Your task to perform on an android device: Search for Italian restaurants on Maps Image 0: 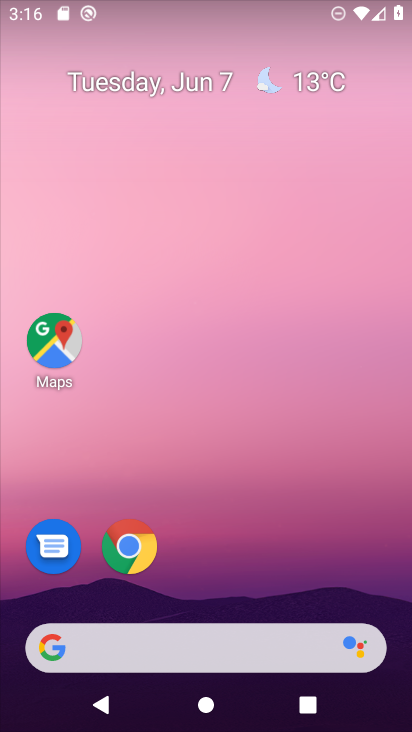
Step 0: click (182, 416)
Your task to perform on an android device: Search for Italian restaurants on Maps Image 1: 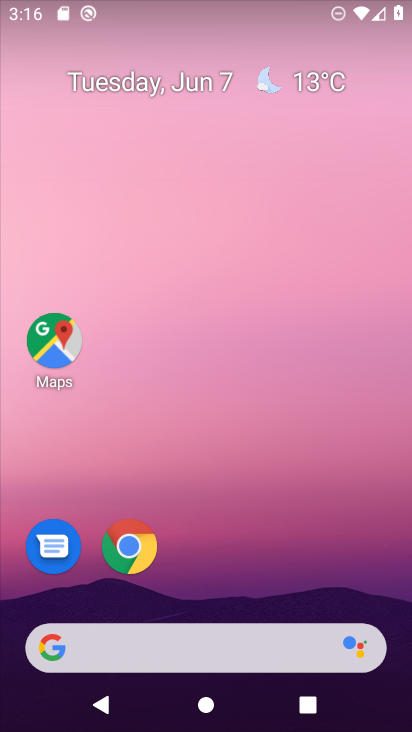
Step 1: click (59, 319)
Your task to perform on an android device: Search for Italian restaurants on Maps Image 2: 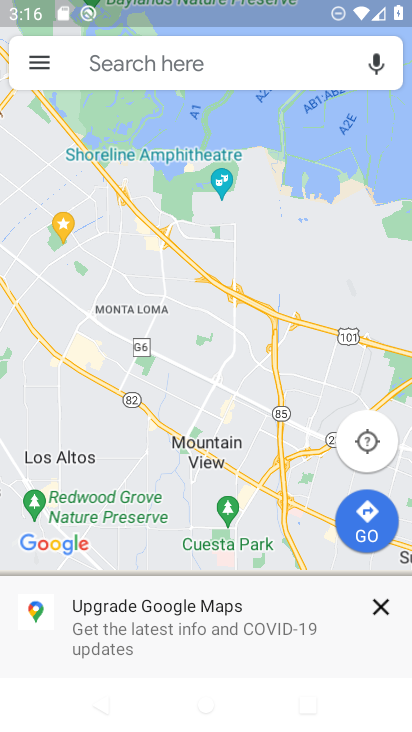
Step 2: click (130, 41)
Your task to perform on an android device: Search for Italian restaurants on Maps Image 3: 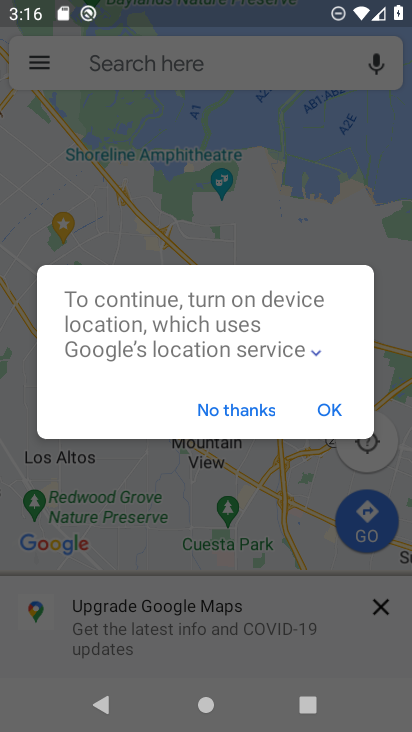
Step 3: click (260, 412)
Your task to perform on an android device: Search for Italian restaurants on Maps Image 4: 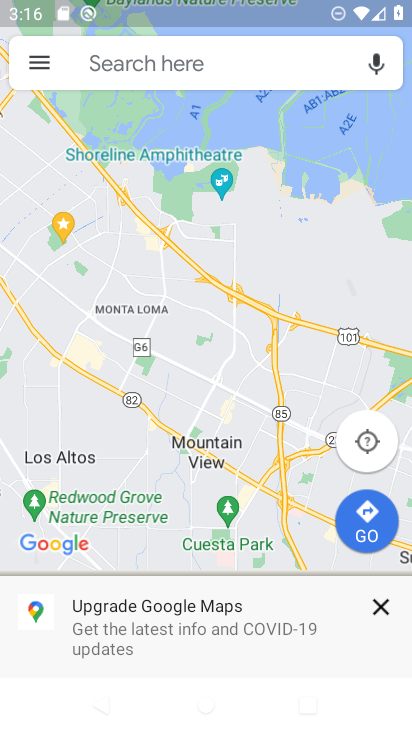
Step 4: click (160, 69)
Your task to perform on an android device: Search for Italian restaurants on Maps Image 5: 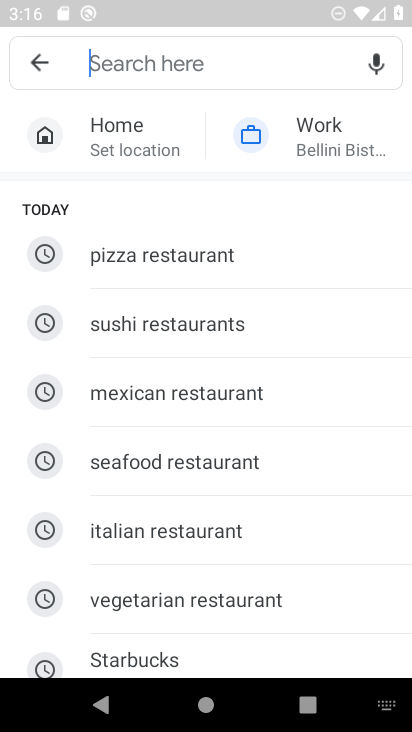
Step 5: click (135, 528)
Your task to perform on an android device: Search for Italian restaurants on Maps Image 6: 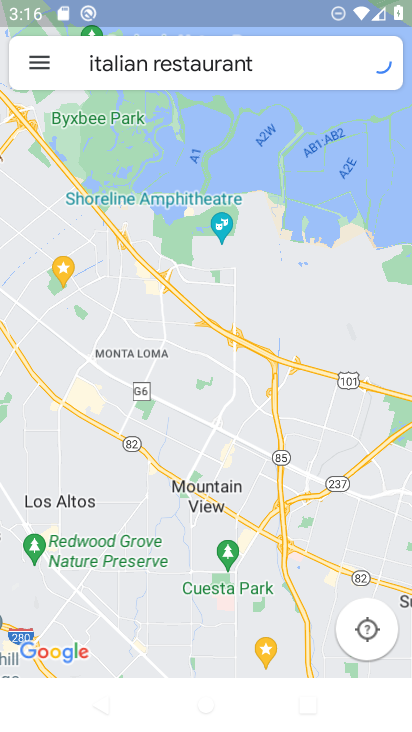
Step 6: task complete